Your task to perform on an android device: Open privacy settings Image 0: 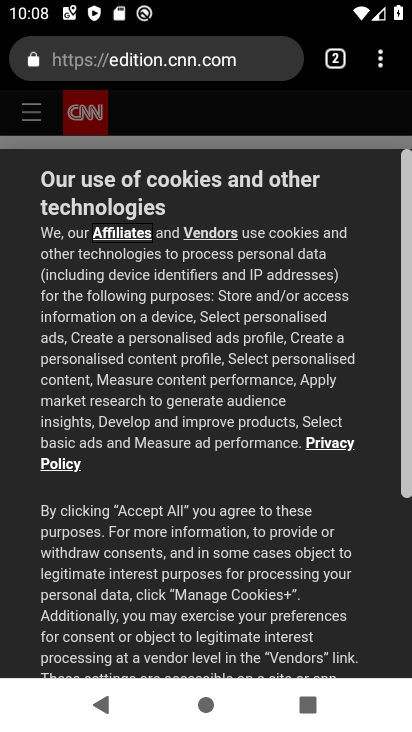
Step 0: press home button
Your task to perform on an android device: Open privacy settings Image 1: 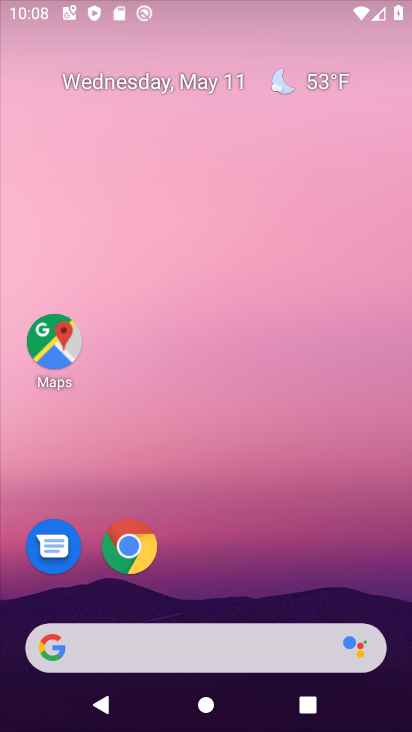
Step 1: drag from (336, 601) to (267, 76)
Your task to perform on an android device: Open privacy settings Image 2: 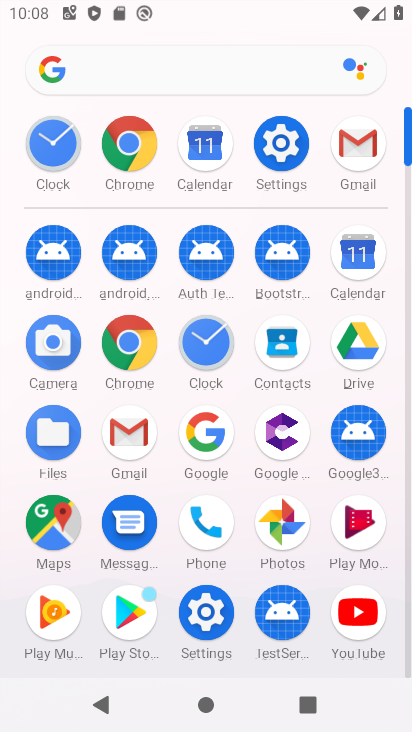
Step 2: click (274, 163)
Your task to perform on an android device: Open privacy settings Image 3: 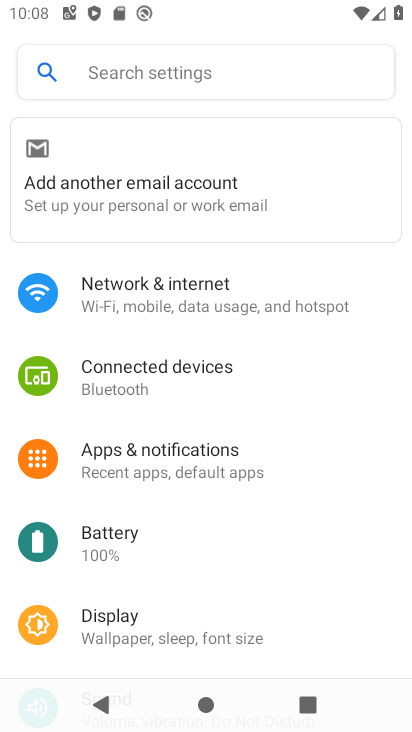
Step 3: drag from (164, 593) to (191, 141)
Your task to perform on an android device: Open privacy settings Image 4: 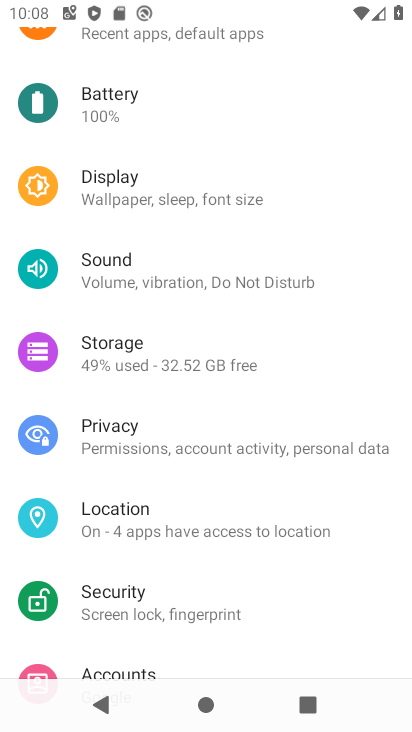
Step 4: click (150, 449)
Your task to perform on an android device: Open privacy settings Image 5: 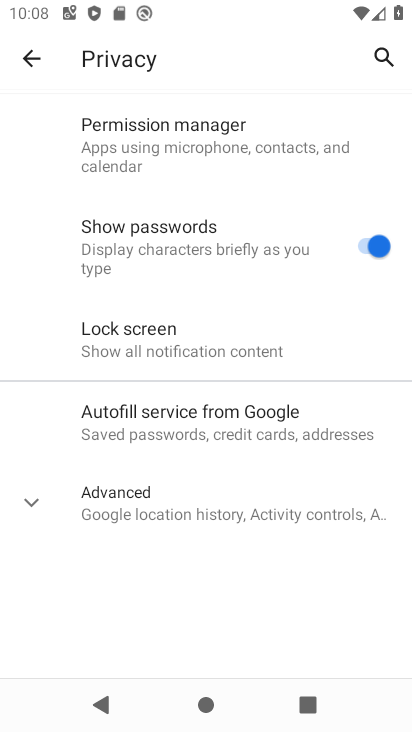
Step 5: task complete